Your task to perform on an android device: Go to calendar. Show me events next week Image 0: 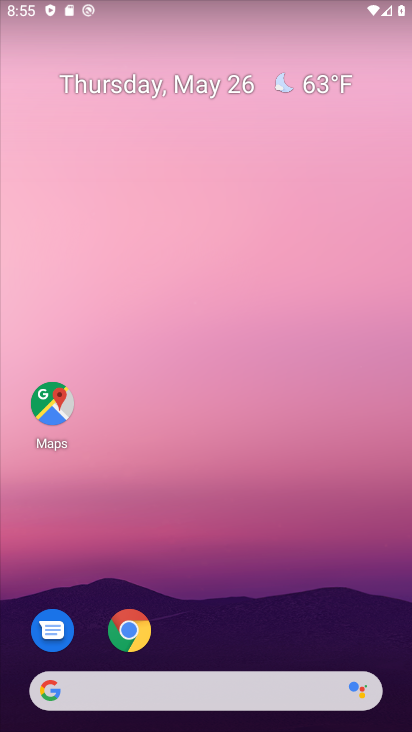
Step 0: drag from (271, 614) to (227, 350)
Your task to perform on an android device: Go to calendar. Show me events next week Image 1: 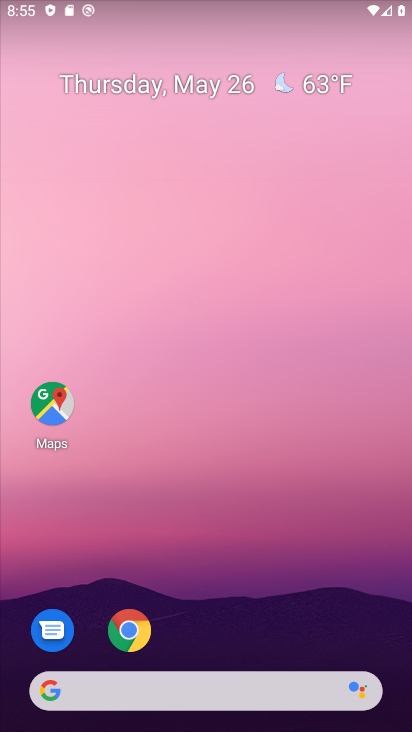
Step 1: drag from (269, 704) to (199, 272)
Your task to perform on an android device: Go to calendar. Show me events next week Image 2: 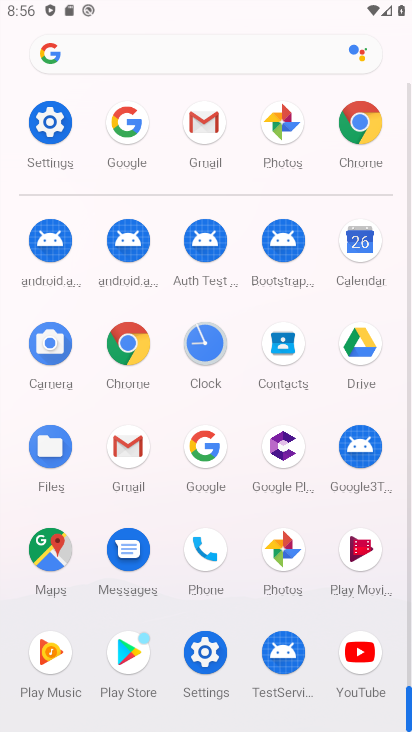
Step 2: click (353, 246)
Your task to perform on an android device: Go to calendar. Show me events next week Image 3: 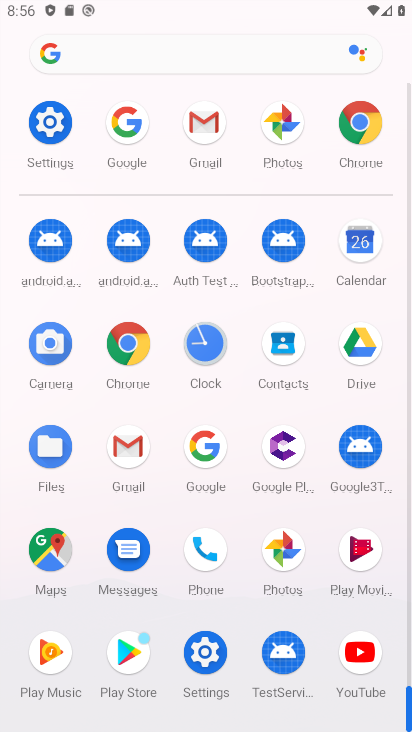
Step 3: click (363, 246)
Your task to perform on an android device: Go to calendar. Show me events next week Image 4: 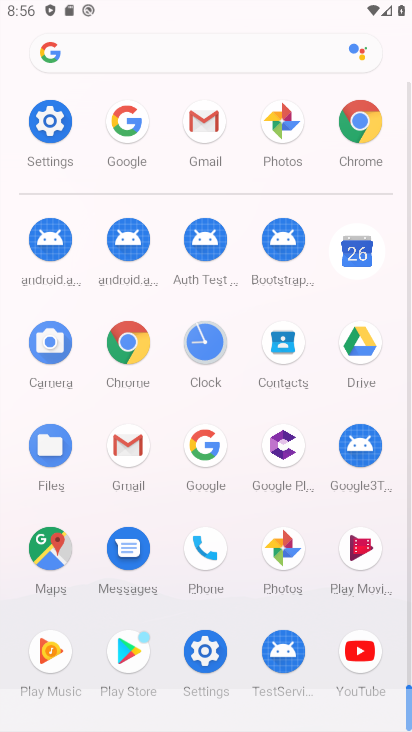
Step 4: click (373, 246)
Your task to perform on an android device: Go to calendar. Show me events next week Image 5: 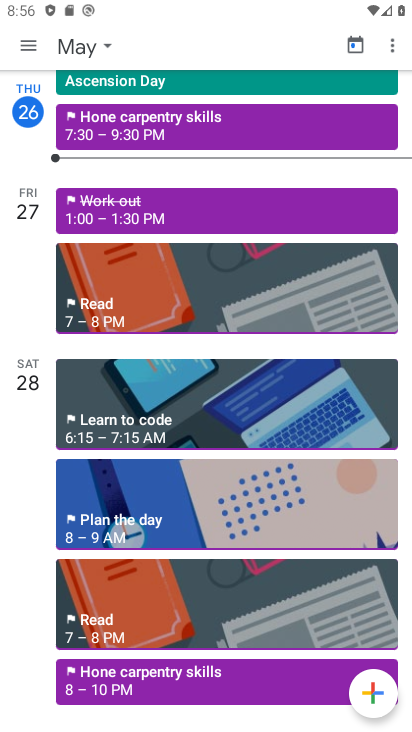
Step 5: drag from (141, 521) to (117, 186)
Your task to perform on an android device: Go to calendar. Show me events next week Image 6: 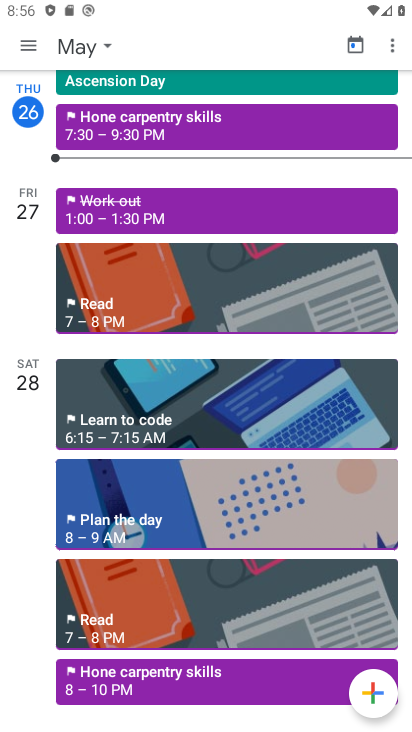
Step 6: drag from (215, 518) to (205, 167)
Your task to perform on an android device: Go to calendar. Show me events next week Image 7: 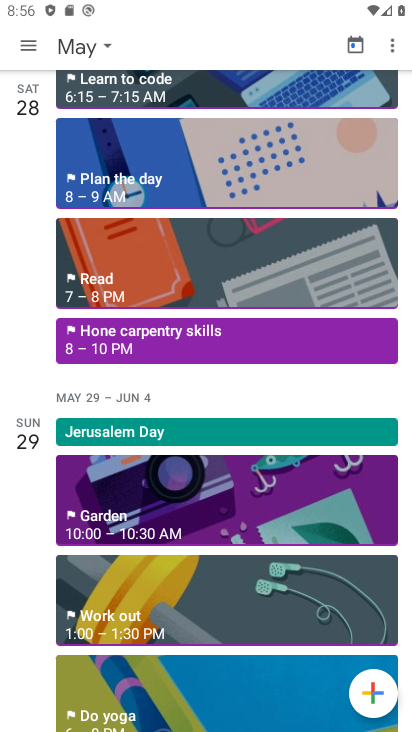
Step 7: drag from (144, 400) to (199, 63)
Your task to perform on an android device: Go to calendar. Show me events next week Image 8: 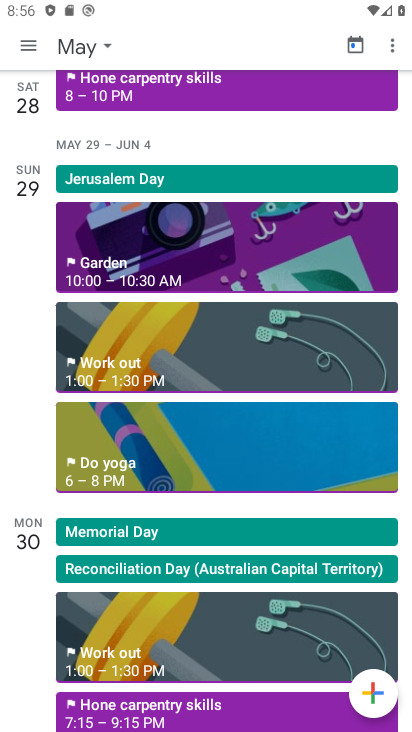
Step 8: drag from (163, 342) to (169, 248)
Your task to perform on an android device: Go to calendar. Show me events next week Image 9: 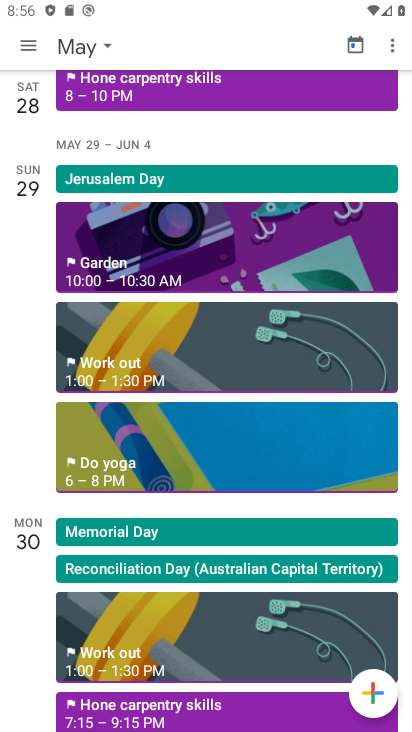
Step 9: click (125, 629)
Your task to perform on an android device: Go to calendar. Show me events next week Image 10: 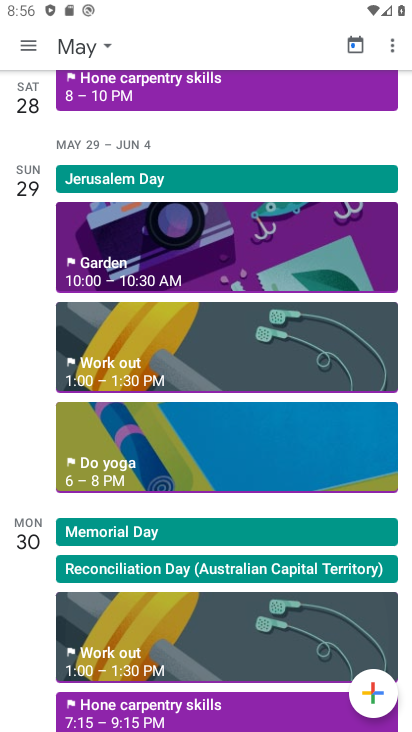
Step 10: click (129, 628)
Your task to perform on an android device: Go to calendar. Show me events next week Image 11: 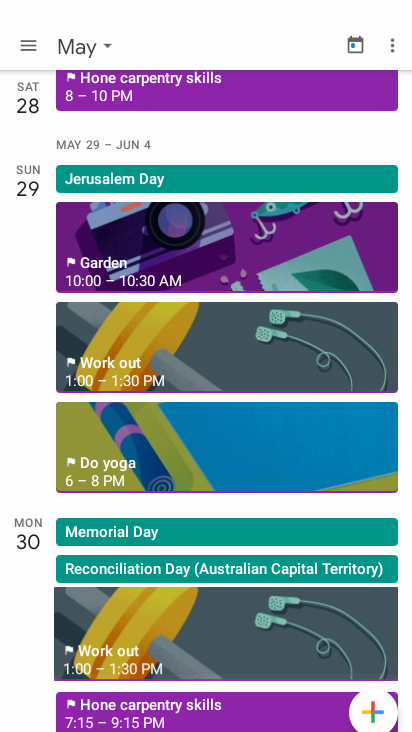
Step 11: click (129, 628)
Your task to perform on an android device: Go to calendar. Show me events next week Image 12: 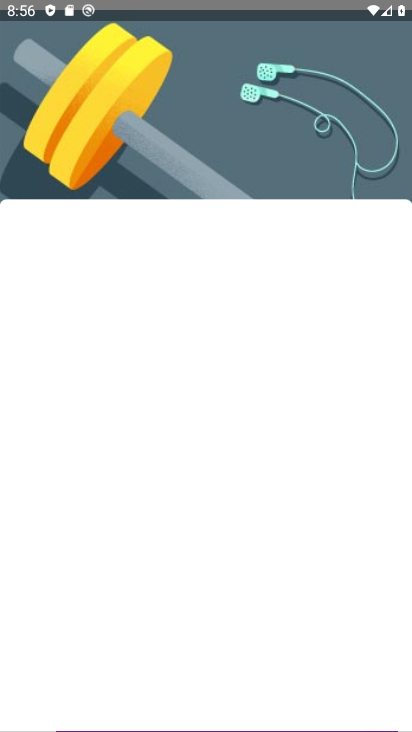
Step 12: click (129, 628)
Your task to perform on an android device: Go to calendar. Show me events next week Image 13: 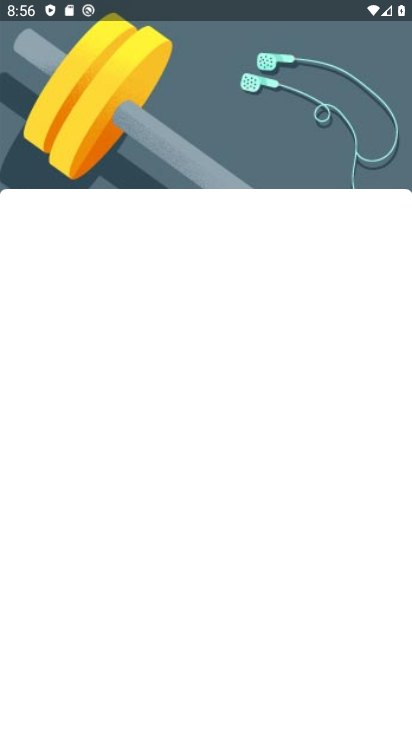
Step 13: click (129, 628)
Your task to perform on an android device: Go to calendar. Show me events next week Image 14: 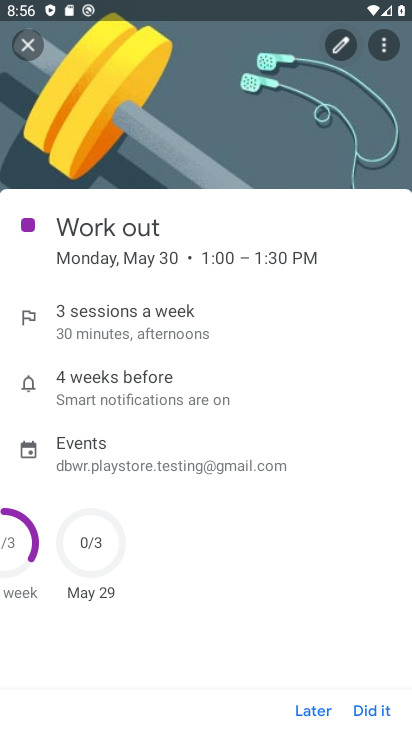
Step 14: click (128, 629)
Your task to perform on an android device: Go to calendar. Show me events next week Image 15: 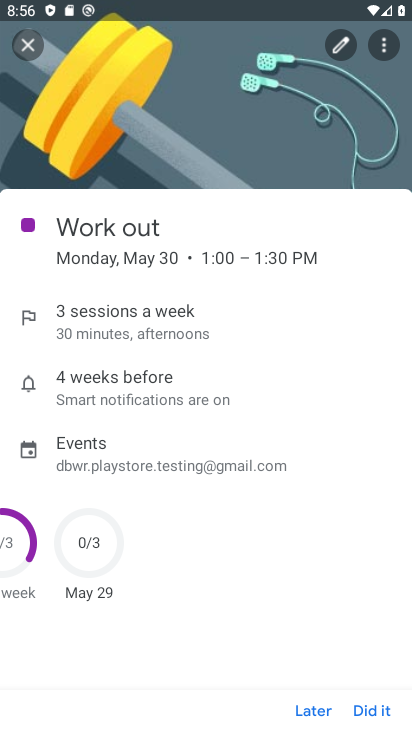
Step 15: task complete